Your task to perform on an android device: toggle translation in the chrome app Image 0: 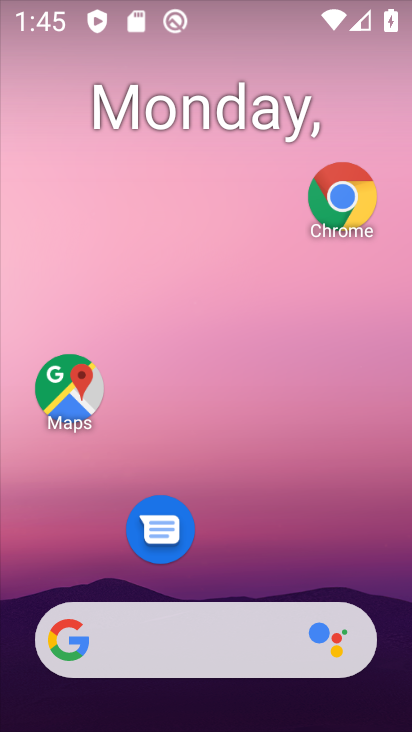
Step 0: drag from (198, 602) to (399, 35)
Your task to perform on an android device: toggle translation in the chrome app Image 1: 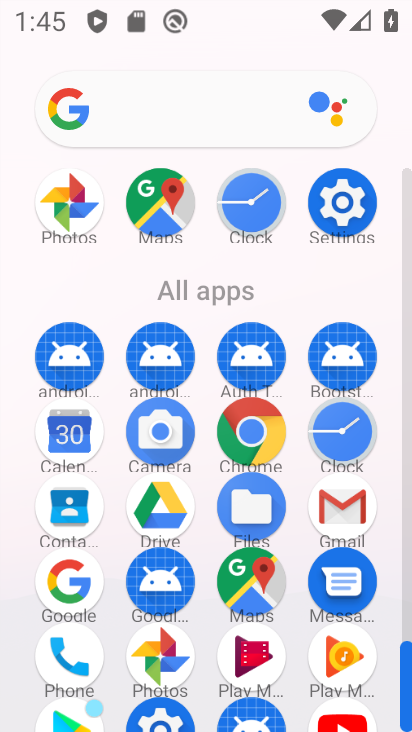
Step 1: click (267, 422)
Your task to perform on an android device: toggle translation in the chrome app Image 2: 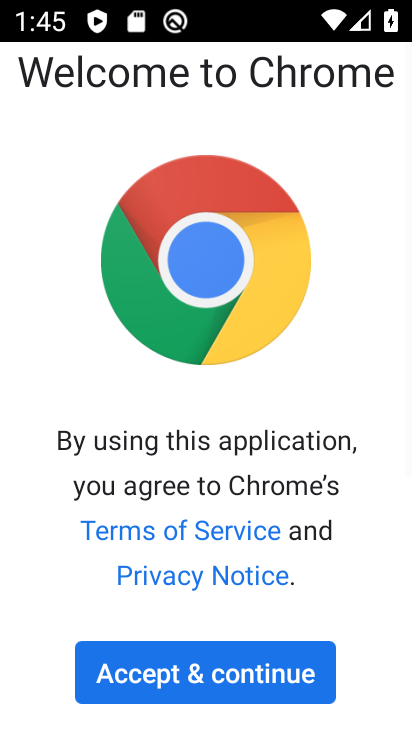
Step 2: click (199, 654)
Your task to perform on an android device: toggle translation in the chrome app Image 3: 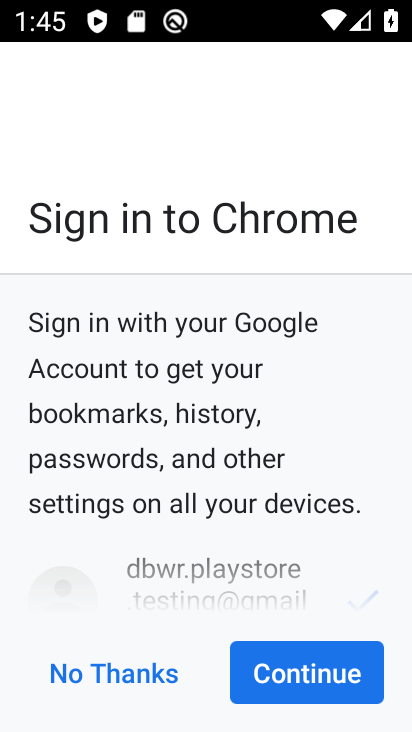
Step 3: click (285, 688)
Your task to perform on an android device: toggle translation in the chrome app Image 4: 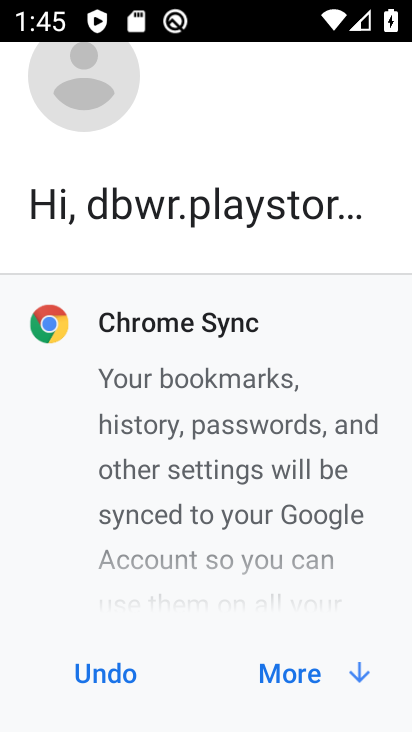
Step 4: click (285, 688)
Your task to perform on an android device: toggle translation in the chrome app Image 5: 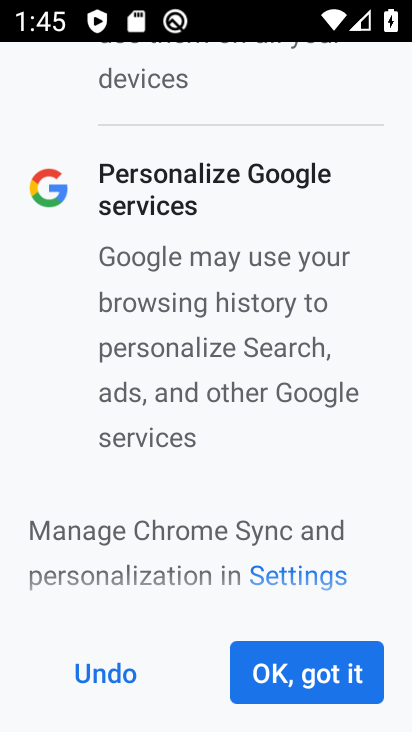
Step 5: click (285, 683)
Your task to perform on an android device: toggle translation in the chrome app Image 6: 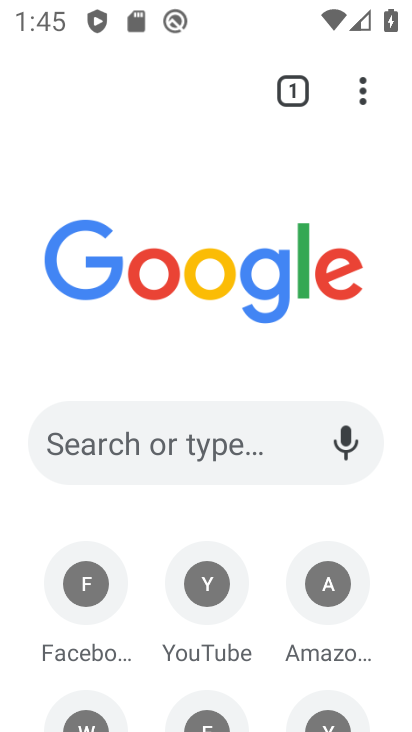
Step 6: click (360, 97)
Your task to perform on an android device: toggle translation in the chrome app Image 7: 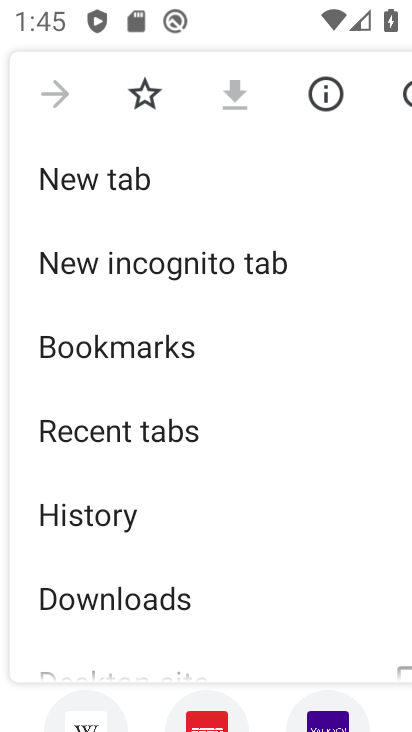
Step 7: drag from (196, 592) to (167, 185)
Your task to perform on an android device: toggle translation in the chrome app Image 8: 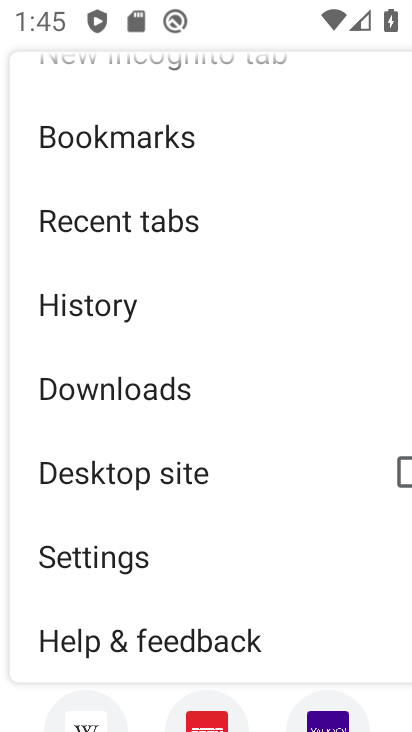
Step 8: click (99, 552)
Your task to perform on an android device: toggle translation in the chrome app Image 9: 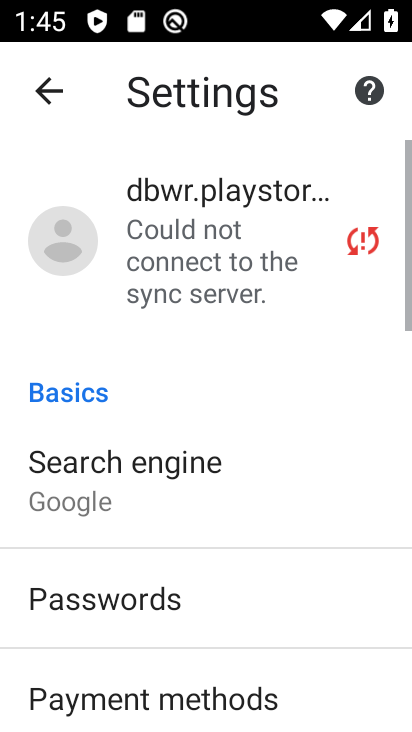
Step 9: drag from (147, 612) to (138, 195)
Your task to perform on an android device: toggle translation in the chrome app Image 10: 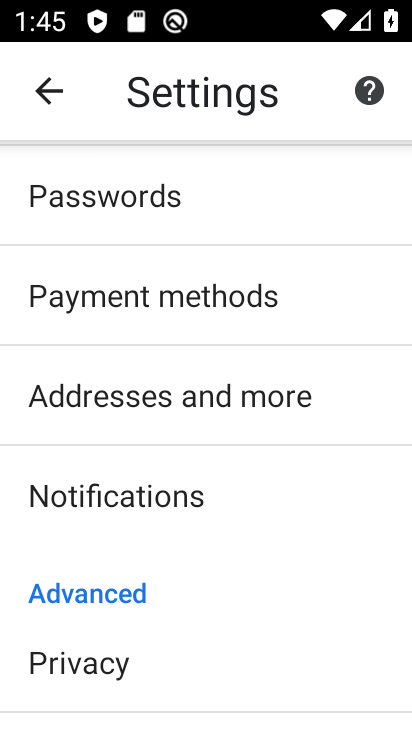
Step 10: drag from (165, 615) to (171, 139)
Your task to perform on an android device: toggle translation in the chrome app Image 11: 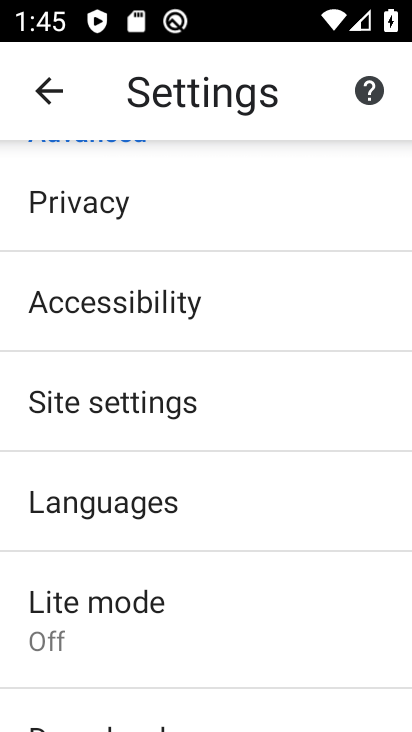
Step 11: drag from (160, 646) to (160, 456)
Your task to perform on an android device: toggle translation in the chrome app Image 12: 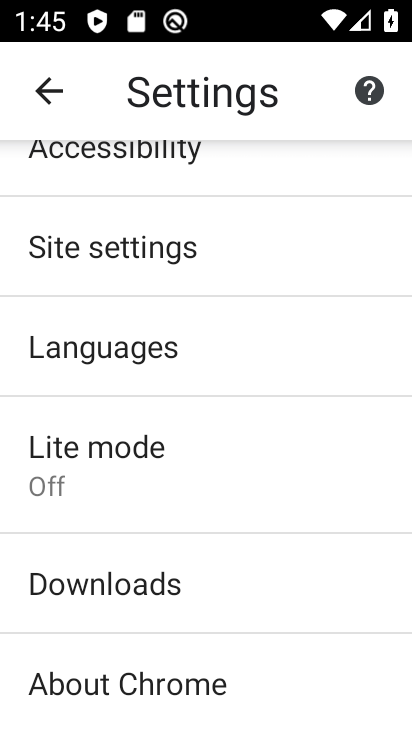
Step 12: click (123, 358)
Your task to perform on an android device: toggle translation in the chrome app Image 13: 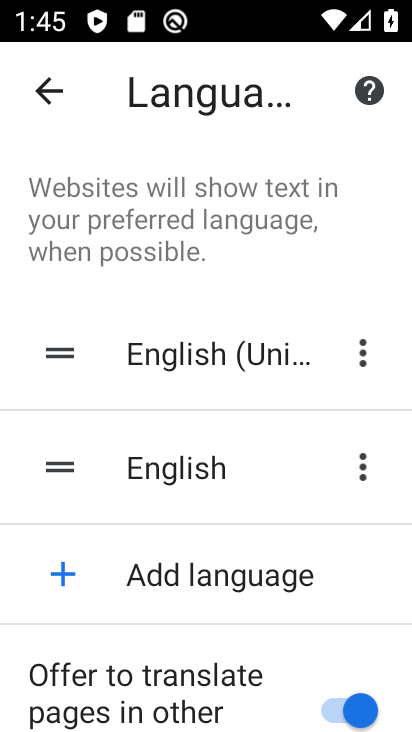
Step 13: click (325, 711)
Your task to perform on an android device: toggle translation in the chrome app Image 14: 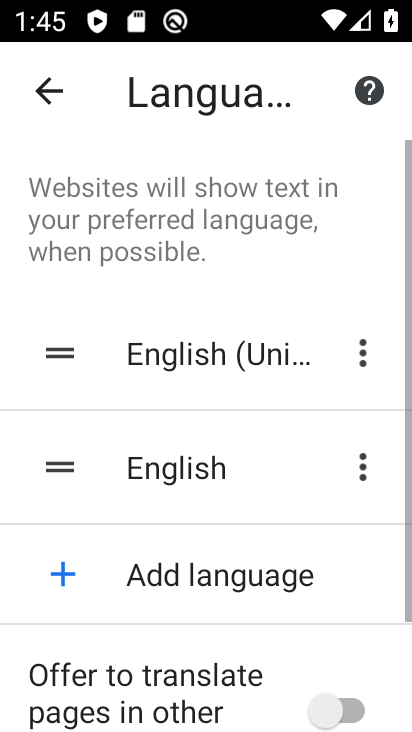
Step 14: task complete